Your task to perform on an android device: What's the weather going to be tomorrow? Image 0: 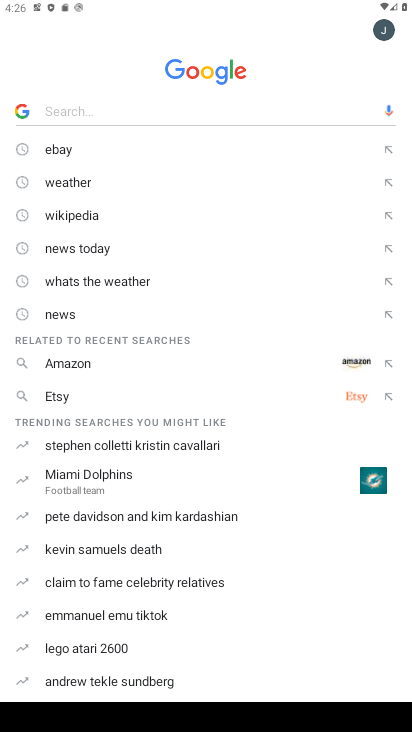
Step 0: press back button
Your task to perform on an android device: What's the weather going to be tomorrow? Image 1: 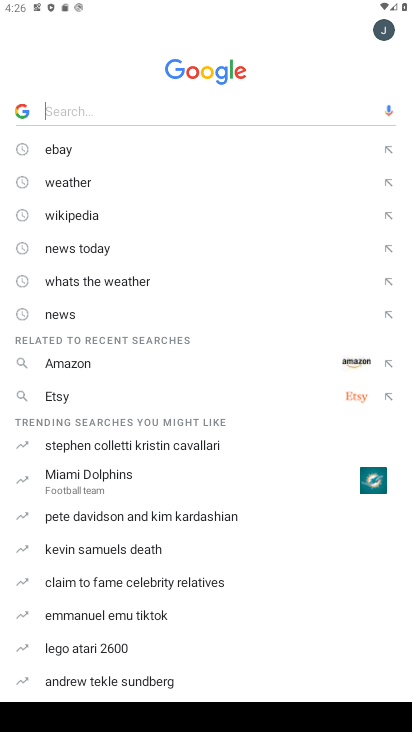
Step 1: press back button
Your task to perform on an android device: What's the weather going to be tomorrow? Image 2: 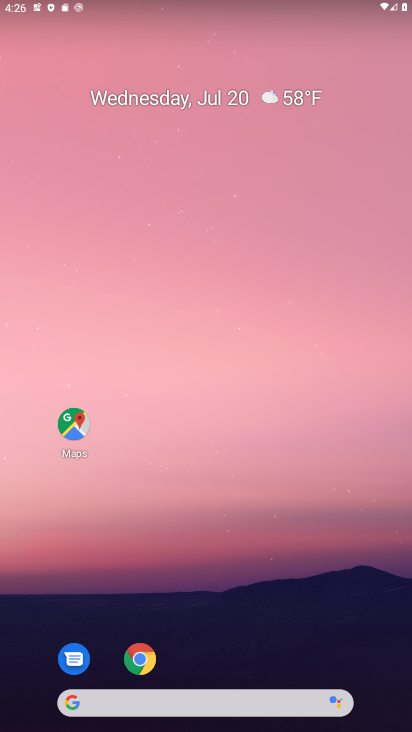
Step 2: drag from (150, 328) to (115, 77)
Your task to perform on an android device: What's the weather going to be tomorrow? Image 3: 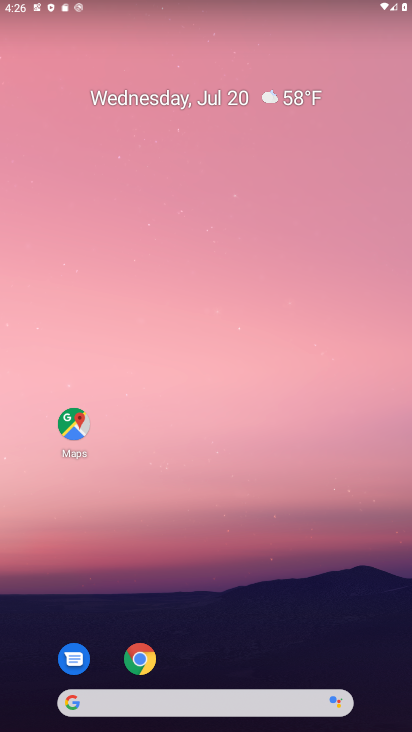
Step 3: drag from (244, 497) to (182, 0)
Your task to perform on an android device: What's the weather going to be tomorrow? Image 4: 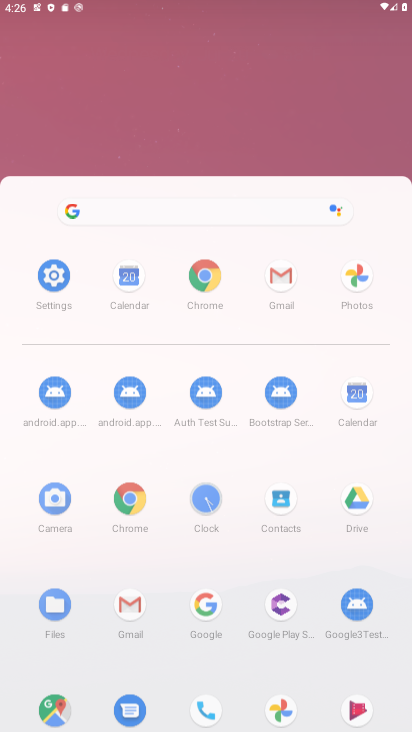
Step 4: drag from (188, 140) to (188, 33)
Your task to perform on an android device: What's the weather going to be tomorrow? Image 5: 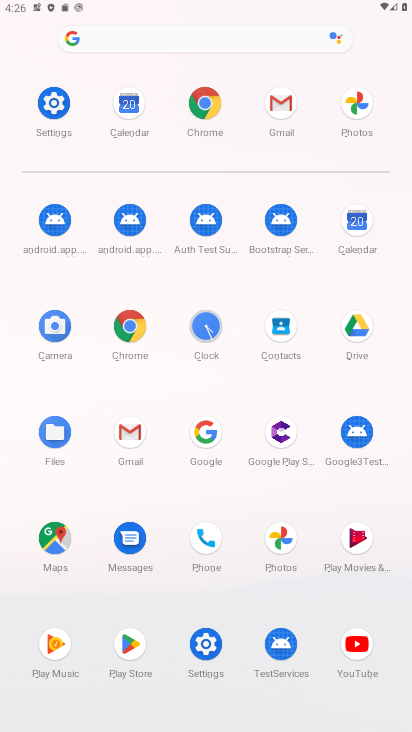
Step 5: click (217, 98)
Your task to perform on an android device: What's the weather going to be tomorrow? Image 6: 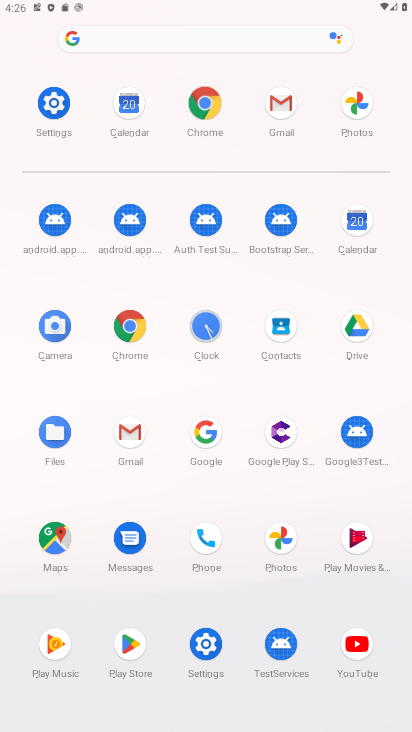
Step 6: click (217, 98)
Your task to perform on an android device: What's the weather going to be tomorrow? Image 7: 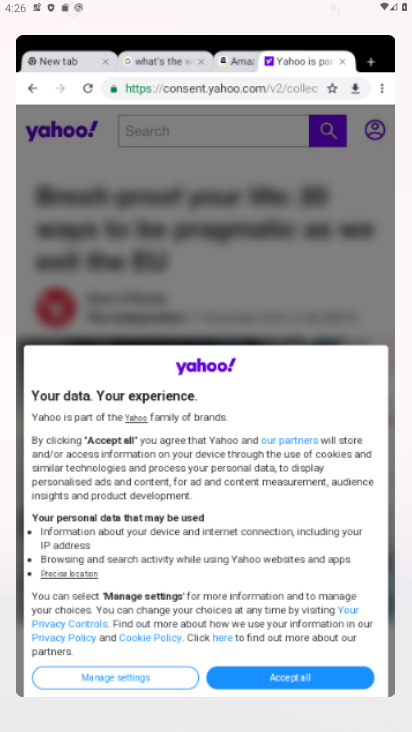
Step 7: click (217, 93)
Your task to perform on an android device: What's the weather going to be tomorrow? Image 8: 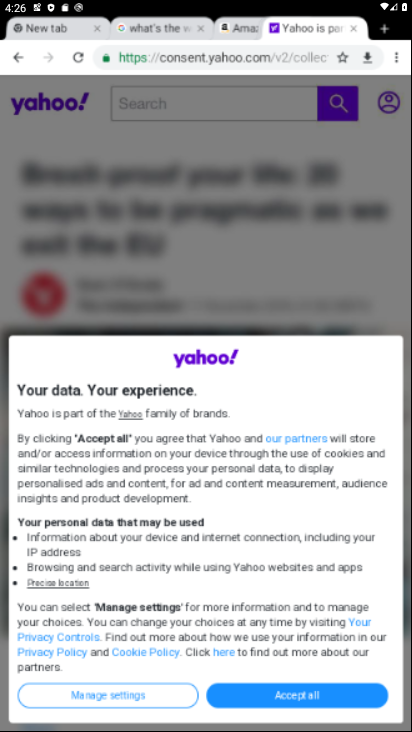
Step 8: click (216, 92)
Your task to perform on an android device: What's the weather going to be tomorrow? Image 9: 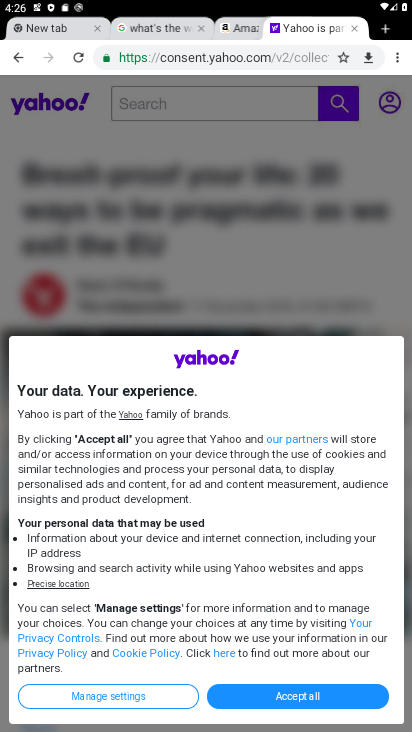
Step 9: drag from (400, 54) to (289, 49)
Your task to perform on an android device: What's the weather going to be tomorrow? Image 10: 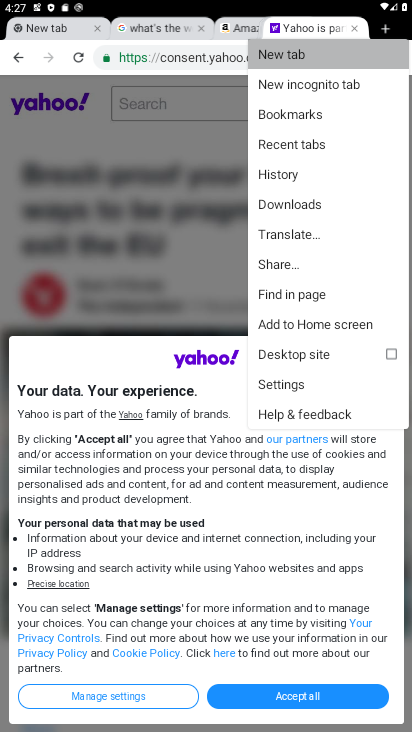
Step 10: click (289, 49)
Your task to perform on an android device: What's the weather going to be tomorrow? Image 11: 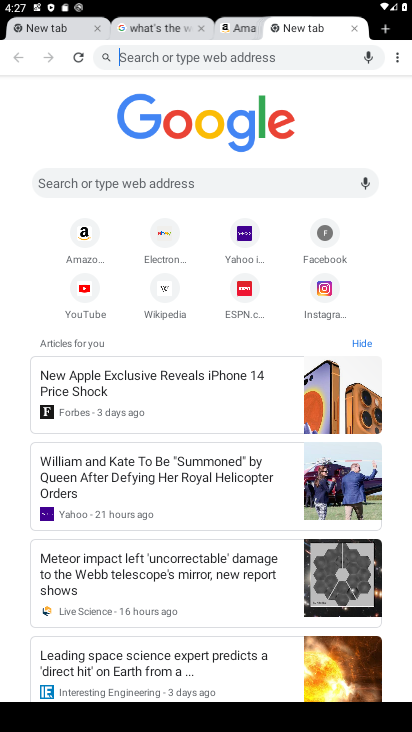
Step 11: click (88, 173)
Your task to perform on an android device: What's the weather going to be tomorrow? Image 12: 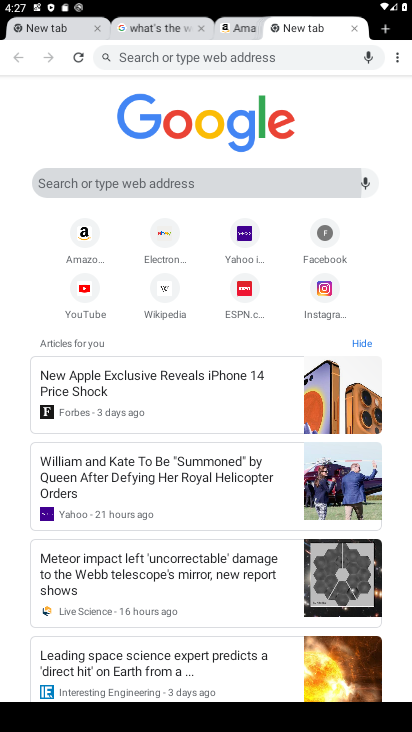
Step 12: click (88, 173)
Your task to perform on an android device: What's the weather going to be tomorrow? Image 13: 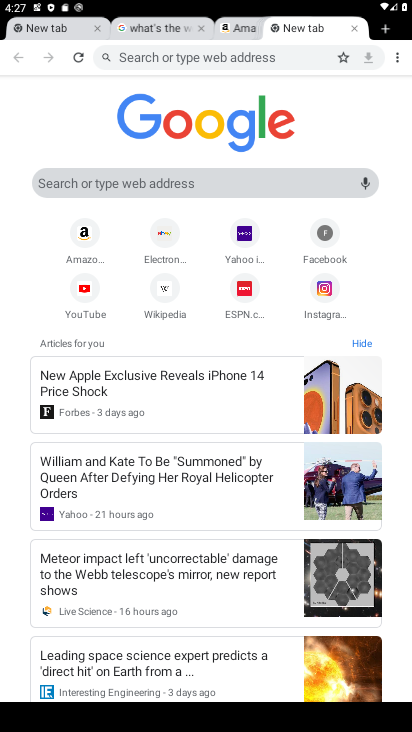
Step 13: click (89, 183)
Your task to perform on an android device: What's the weather going to be tomorrow? Image 14: 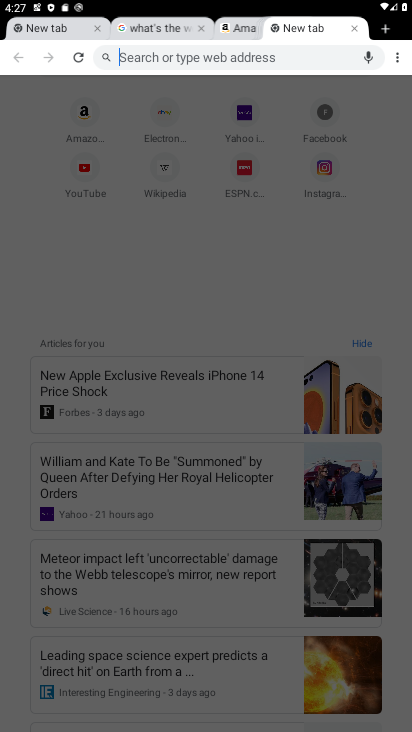
Step 14: click (90, 184)
Your task to perform on an android device: What's the weather going to be tomorrow? Image 15: 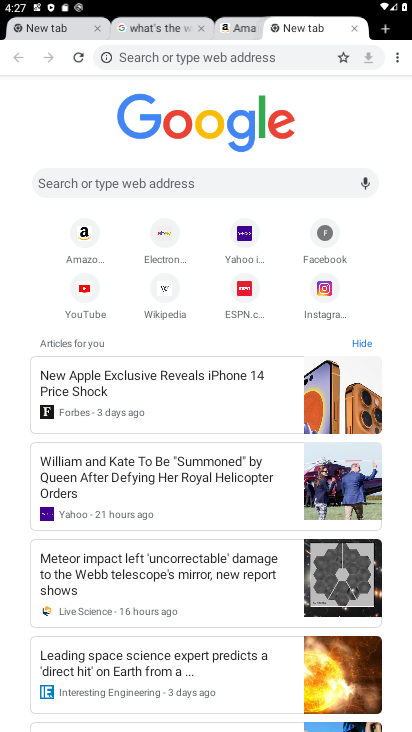
Step 15: click (144, 44)
Your task to perform on an android device: What's the weather going to be tomorrow? Image 16: 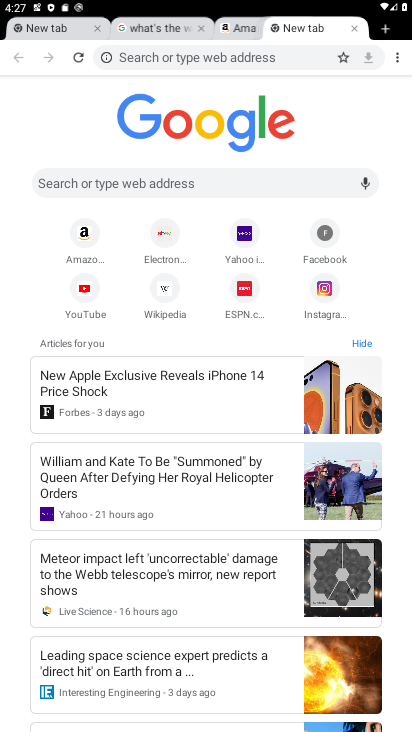
Step 16: click (145, 58)
Your task to perform on an android device: What's the weather going to be tomorrow? Image 17: 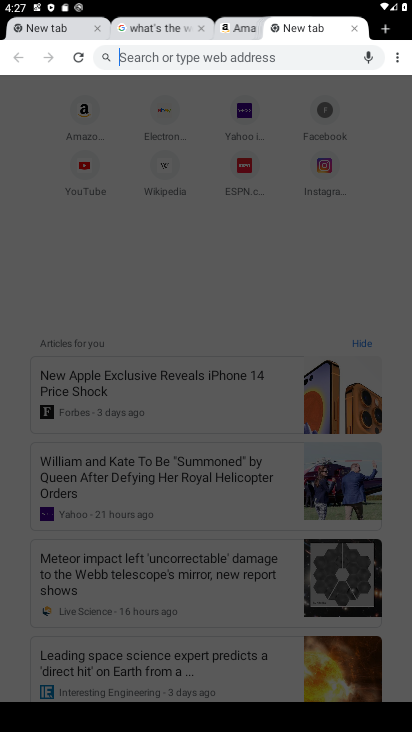
Step 17: type "tomorrow weather?"
Your task to perform on an android device: What's the weather going to be tomorrow? Image 18: 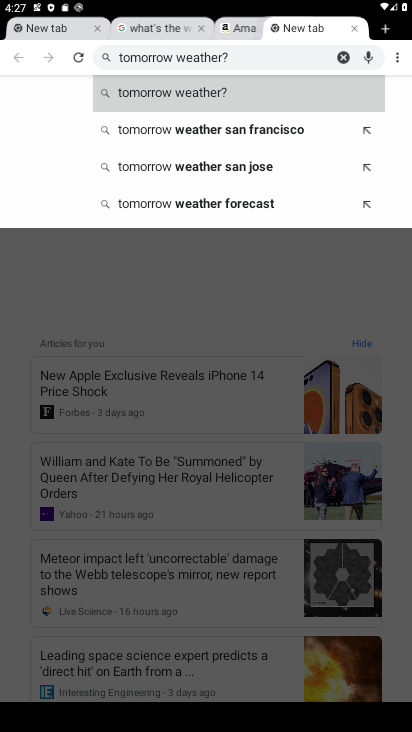
Step 18: click (245, 92)
Your task to perform on an android device: What's the weather going to be tomorrow? Image 19: 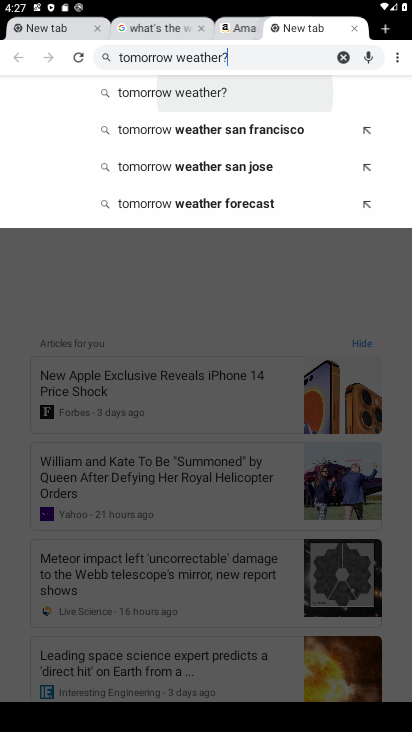
Step 19: click (200, 99)
Your task to perform on an android device: What's the weather going to be tomorrow? Image 20: 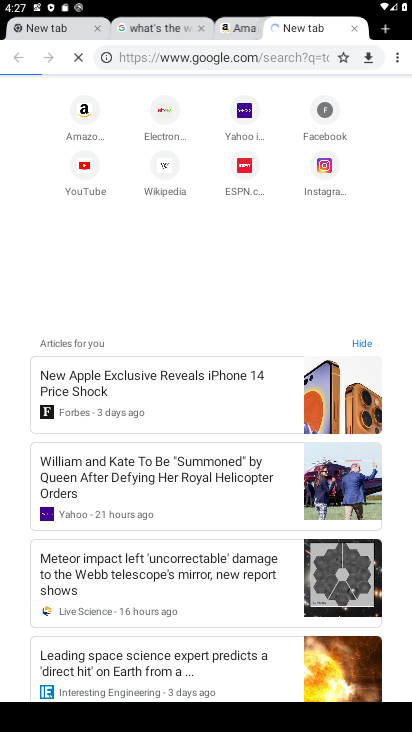
Step 20: click (188, 103)
Your task to perform on an android device: What's the weather going to be tomorrow? Image 21: 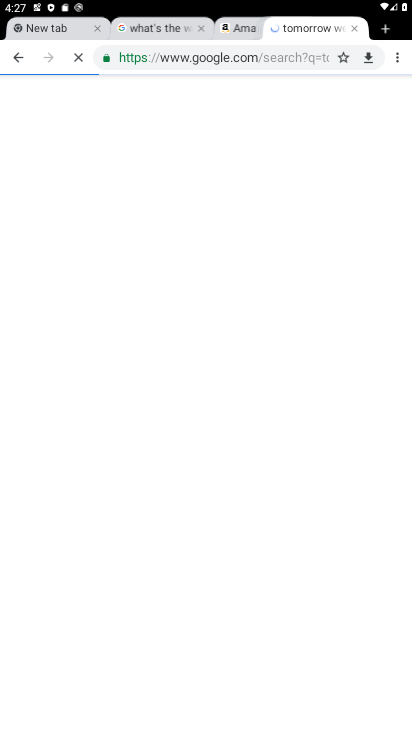
Step 21: click (182, 101)
Your task to perform on an android device: What's the weather going to be tomorrow? Image 22: 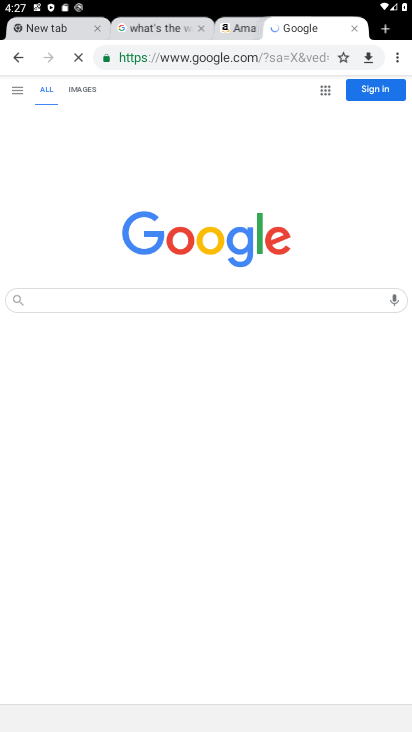
Step 22: task complete